Your task to perform on an android device: stop showing notifications on the lock screen Image 0: 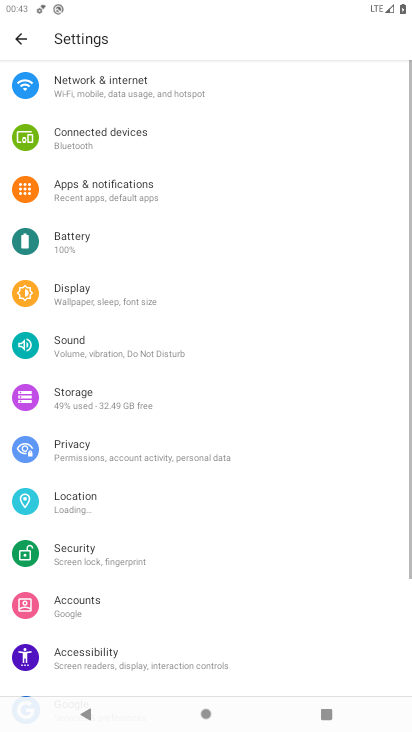
Step 0: press home button
Your task to perform on an android device: stop showing notifications on the lock screen Image 1: 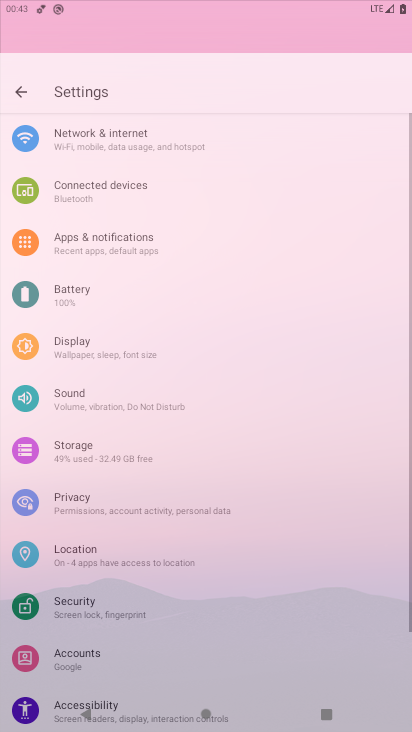
Step 1: drag from (352, 622) to (282, 3)
Your task to perform on an android device: stop showing notifications on the lock screen Image 2: 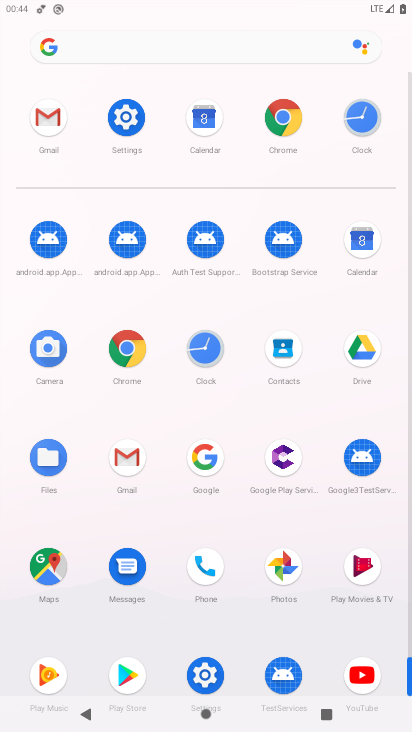
Step 2: click (204, 657)
Your task to perform on an android device: stop showing notifications on the lock screen Image 3: 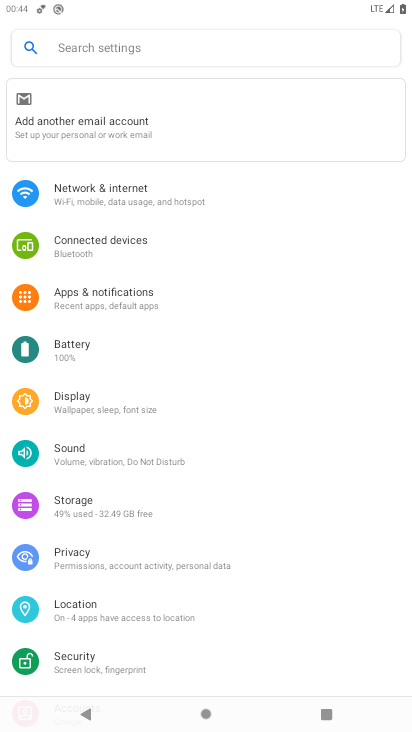
Step 3: click (148, 304)
Your task to perform on an android device: stop showing notifications on the lock screen Image 4: 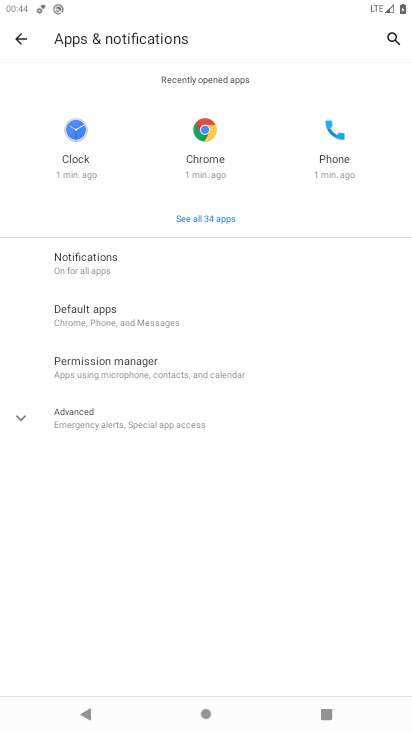
Step 4: click (104, 275)
Your task to perform on an android device: stop showing notifications on the lock screen Image 5: 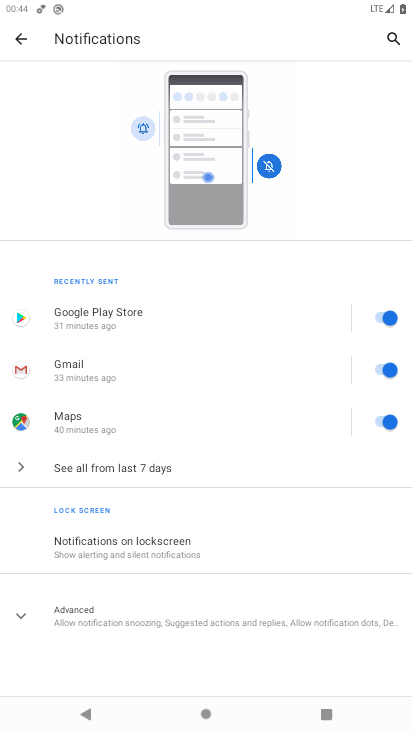
Step 5: click (150, 564)
Your task to perform on an android device: stop showing notifications on the lock screen Image 6: 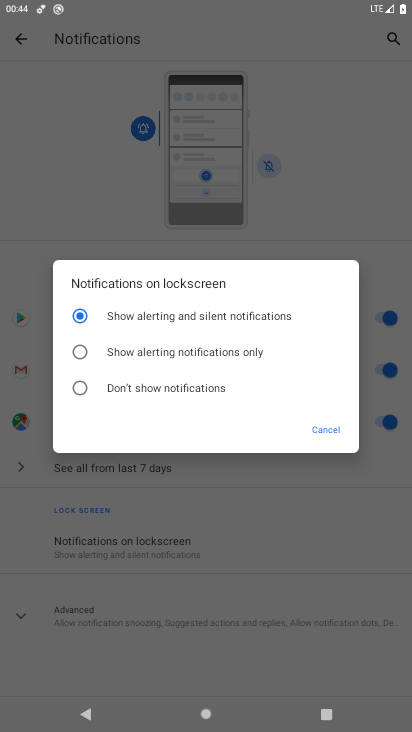
Step 6: click (142, 393)
Your task to perform on an android device: stop showing notifications on the lock screen Image 7: 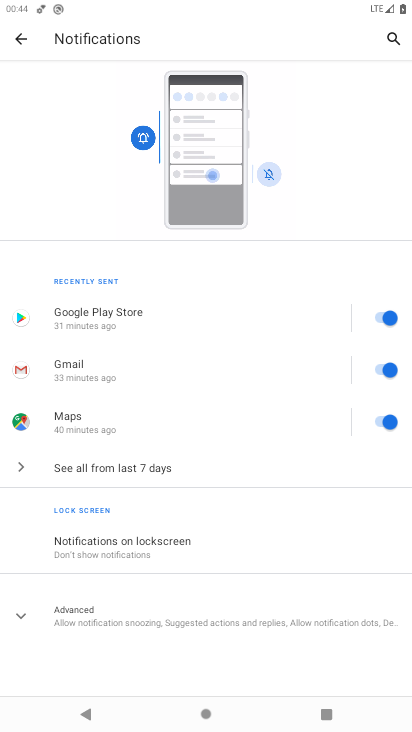
Step 7: task complete